Your task to perform on an android device: check the backup settings in the google photos Image 0: 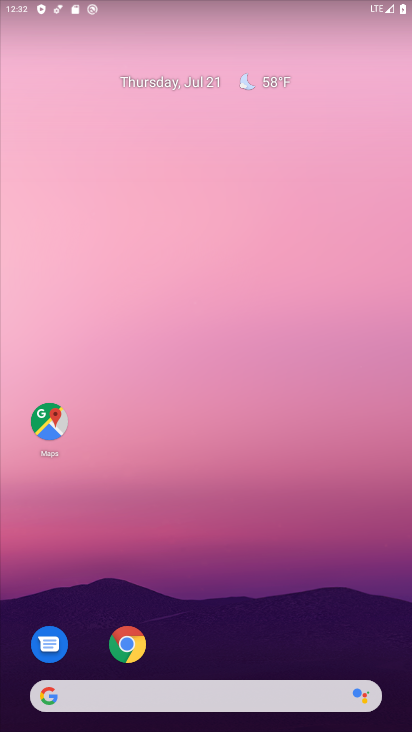
Step 0: drag from (346, 611) to (337, 77)
Your task to perform on an android device: check the backup settings in the google photos Image 1: 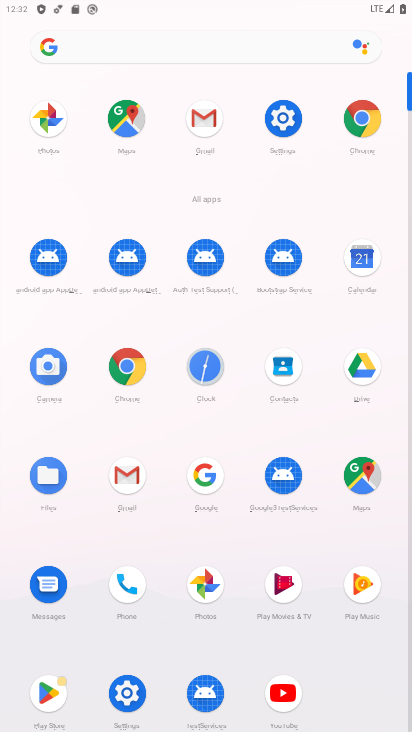
Step 1: click (205, 584)
Your task to perform on an android device: check the backup settings in the google photos Image 2: 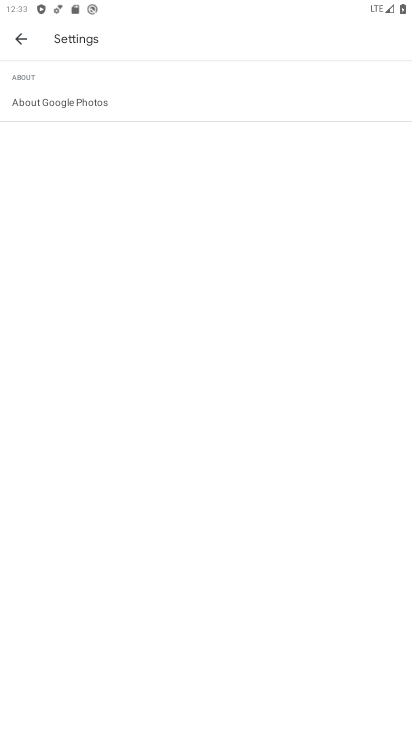
Step 2: click (23, 37)
Your task to perform on an android device: check the backup settings in the google photos Image 3: 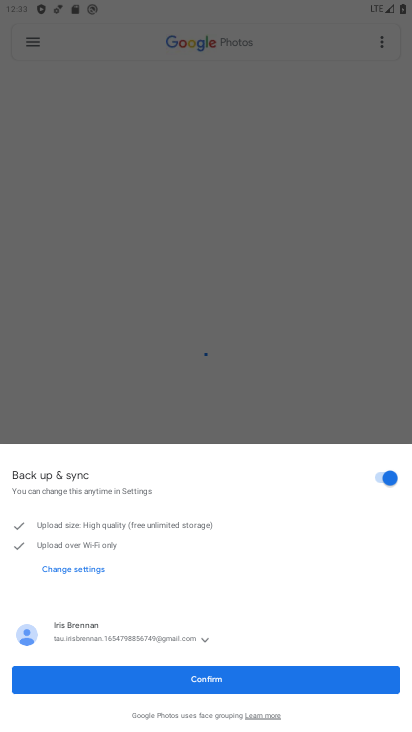
Step 3: click (364, 678)
Your task to perform on an android device: check the backup settings in the google photos Image 4: 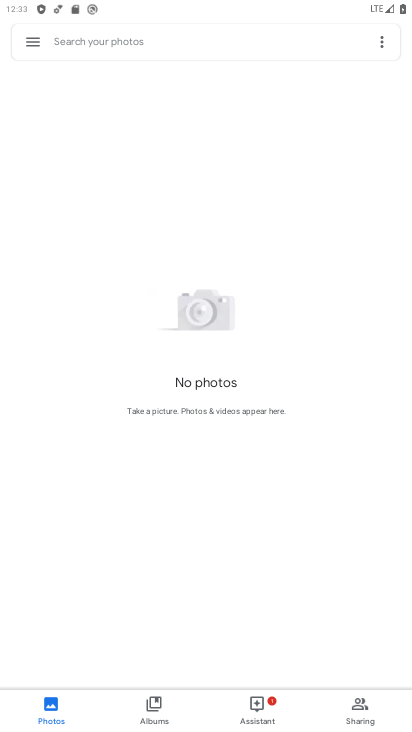
Step 4: click (31, 41)
Your task to perform on an android device: check the backup settings in the google photos Image 5: 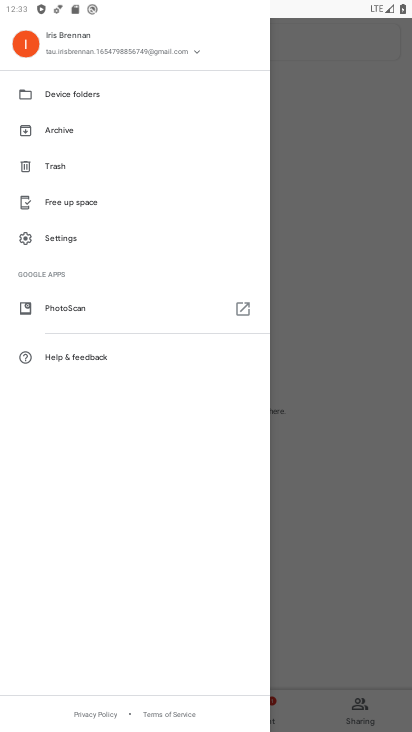
Step 5: click (77, 249)
Your task to perform on an android device: check the backup settings in the google photos Image 6: 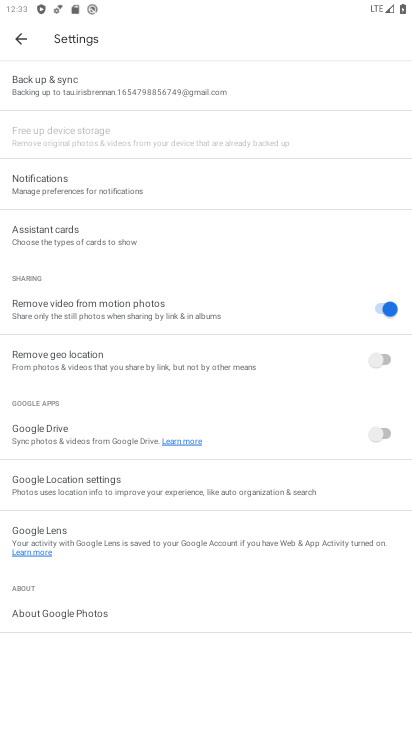
Step 6: click (154, 90)
Your task to perform on an android device: check the backup settings in the google photos Image 7: 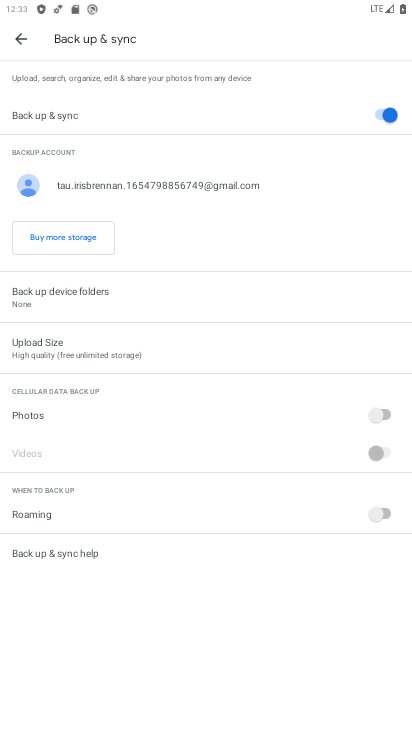
Step 7: task complete